Your task to perform on an android device: add a contact in the contacts app Image 0: 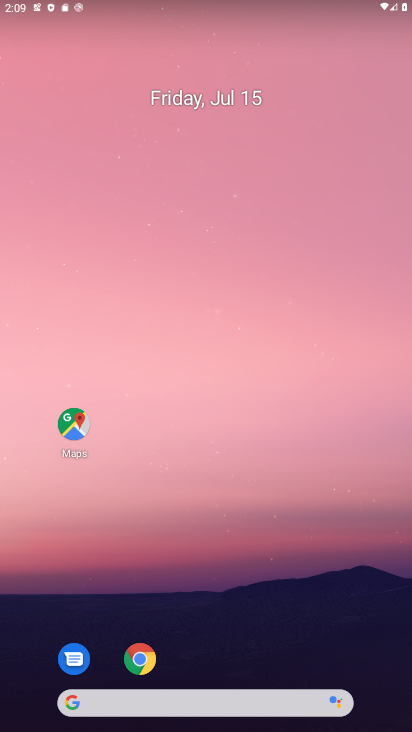
Step 0: click (167, 459)
Your task to perform on an android device: add a contact in the contacts app Image 1: 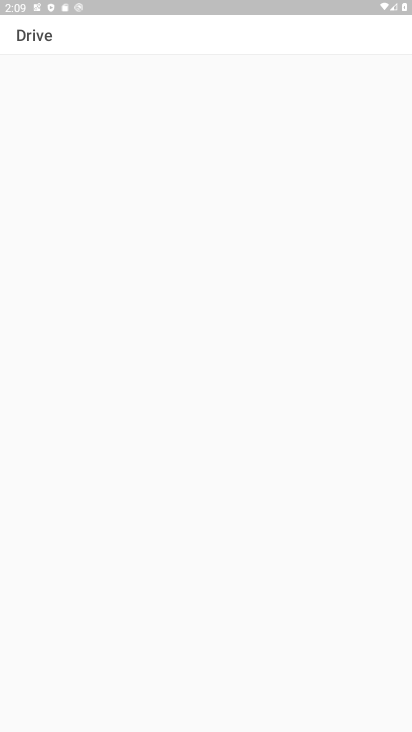
Step 1: press home button
Your task to perform on an android device: add a contact in the contacts app Image 2: 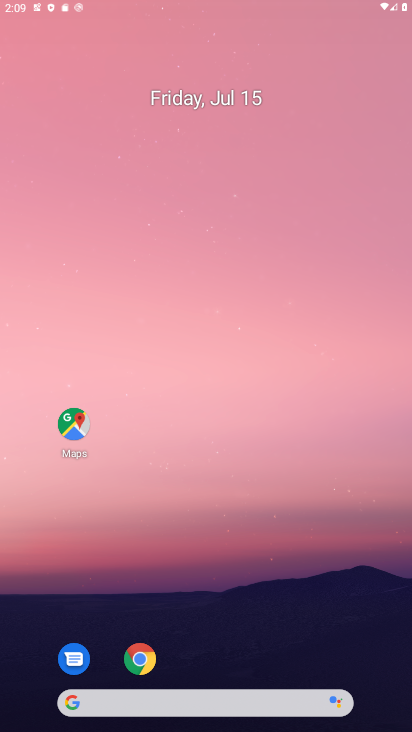
Step 2: drag from (234, 624) to (227, 235)
Your task to perform on an android device: add a contact in the contacts app Image 3: 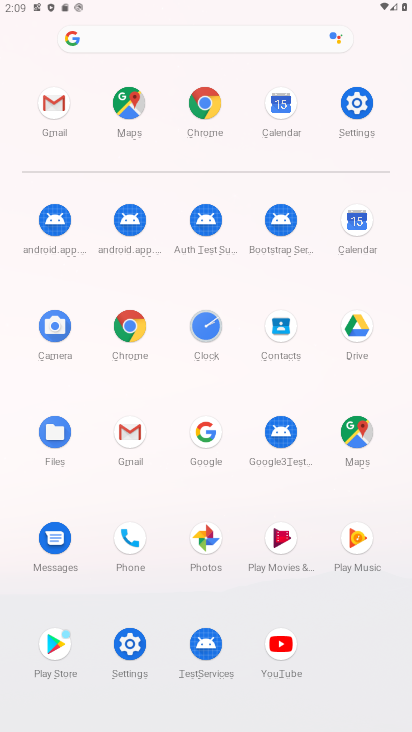
Step 3: click (126, 525)
Your task to perform on an android device: add a contact in the contacts app Image 4: 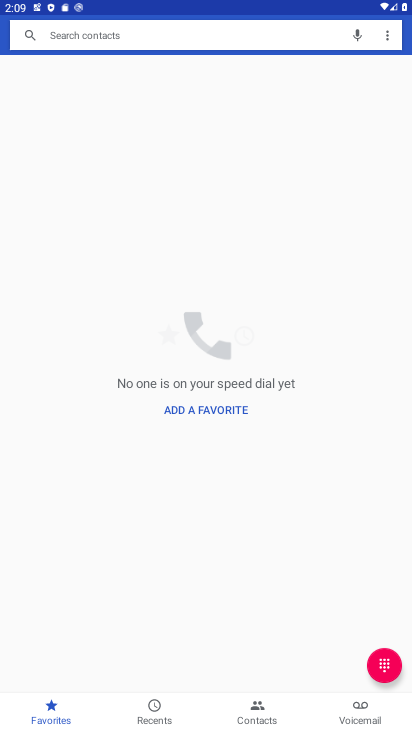
Step 4: click (220, 406)
Your task to perform on an android device: add a contact in the contacts app Image 5: 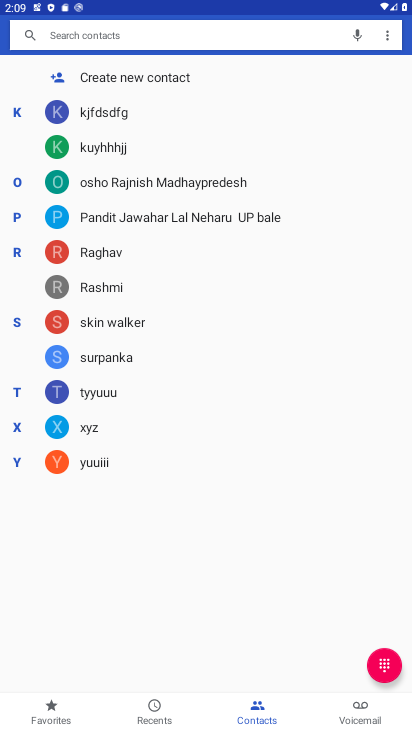
Step 5: click (136, 72)
Your task to perform on an android device: add a contact in the contacts app Image 6: 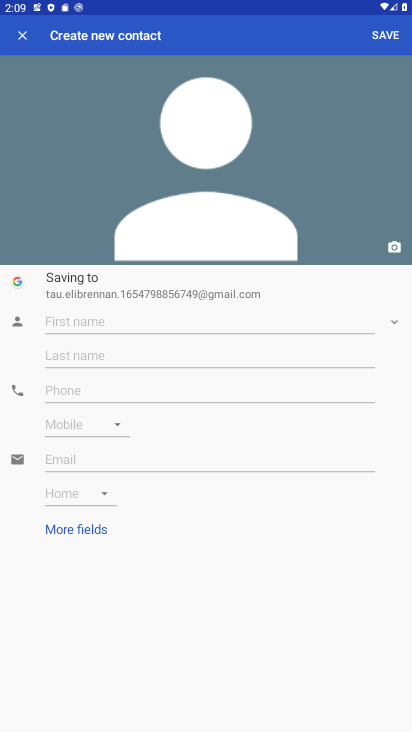
Step 6: click (94, 317)
Your task to perform on an android device: add a contact in the contacts app Image 7: 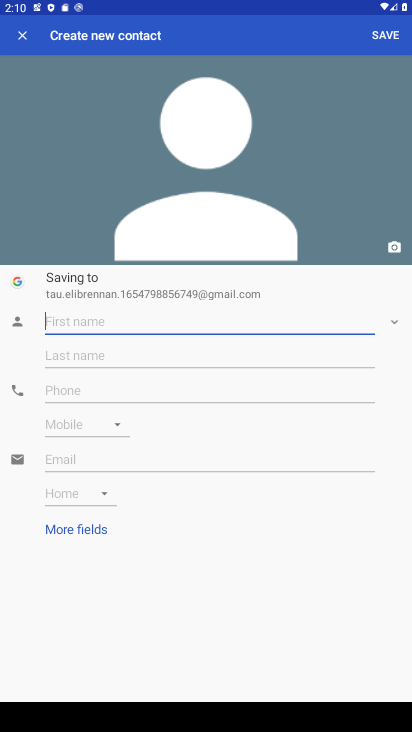
Step 7: type "fffffffffffffffffffffffff "
Your task to perform on an android device: add a contact in the contacts app Image 8: 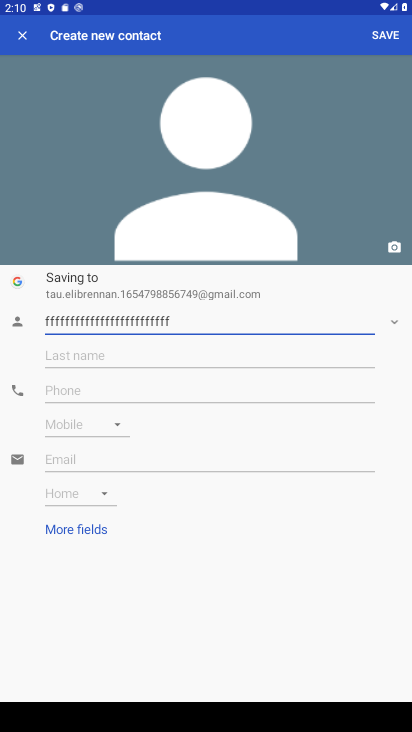
Step 8: click (117, 394)
Your task to perform on an android device: add a contact in the contacts app Image 9: 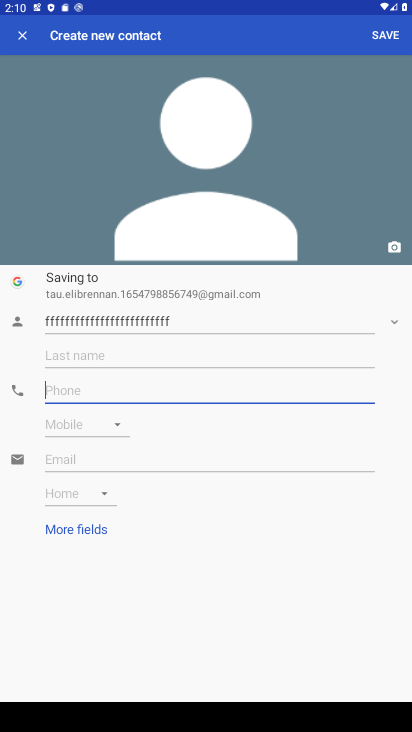
Step 9: type "2222222222222222222222222222 "
Your task to perform on an android device: add a contact in the contacts app Image 10: 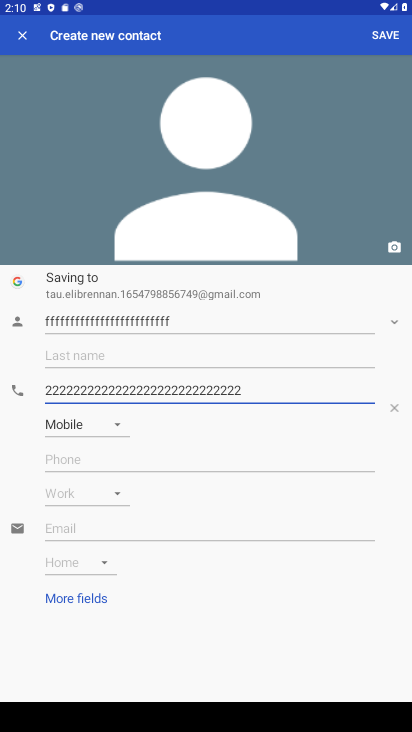
Step 10: click (395, 31)
Your task to perform on an android device: add a contact in the contacts app Image 11: 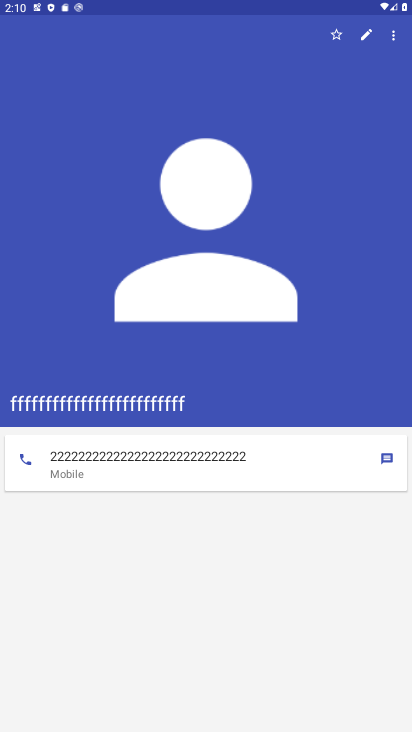
Step 11: task complete